Your task to perform on an android device: Open the Play Movies app and select the watchlist tab. Image 0: 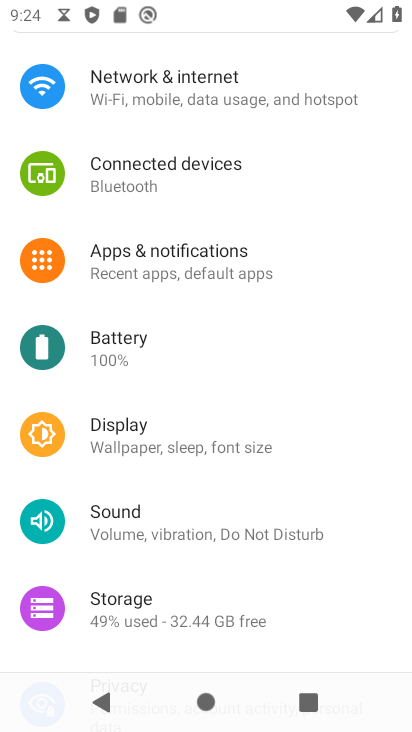
Step 0: press home button
Your task to perform on an android device: Open the Play Movies app and select the watchlist tab. Image 1: 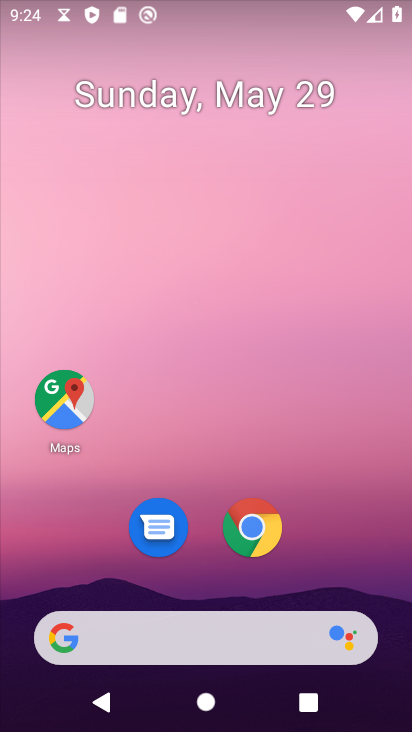
Step 1: drag from (177, 643) to (266, 76)
Your task to perform on an android device: Open the Play Movies app and select the watchlist tab. Image 2: 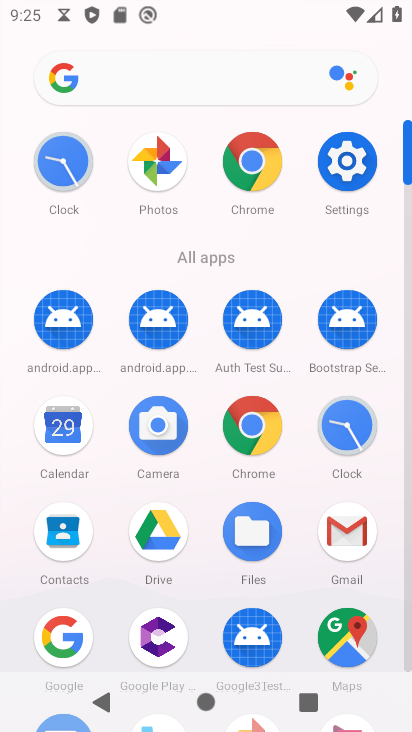
Step 2: drag from (195, 602) to (333, 174)
Your task to perform on an android device: Open the Play Movies app and select the watchlist tab. Image 3: 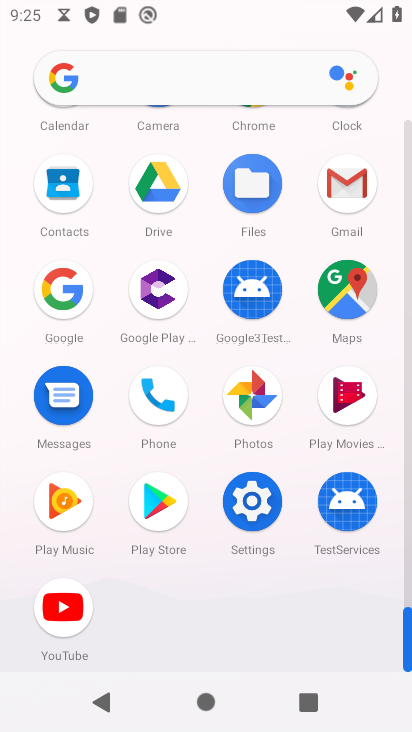
Step 3: click (349, 406)
Your task to perform on an android device: Open the Play Movies app and select the watchlist tab. Image 4: 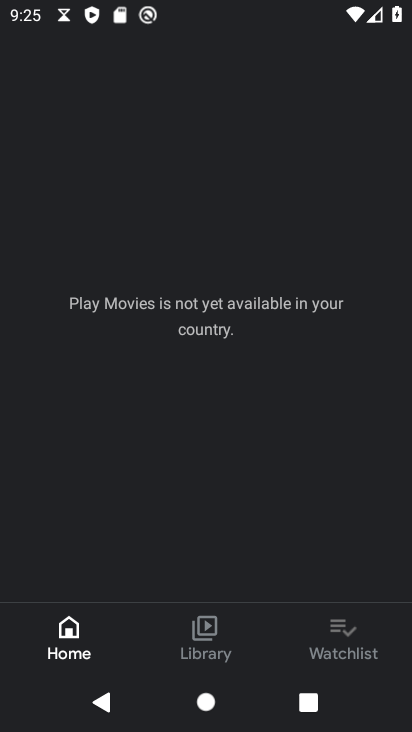
Step 4: click (342, 647)
Your task to perform on an android device: Open the Play Movies app and select the watchlist tab. Image 5: 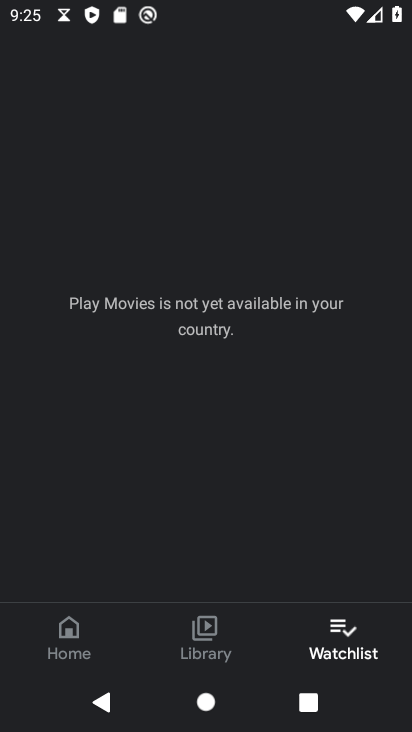
Step 5: task complete